Your task to perform on an android device: Open the phone app and click the voicemail tab. Image 0: 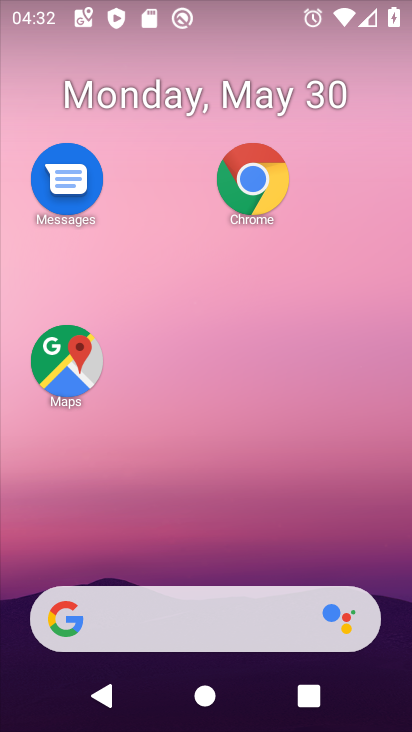
Step 0: drag from (163, 518) to (268, 30)
Your task to perform on an android device: Open the phone app and click the voicemail tab. Image 1: 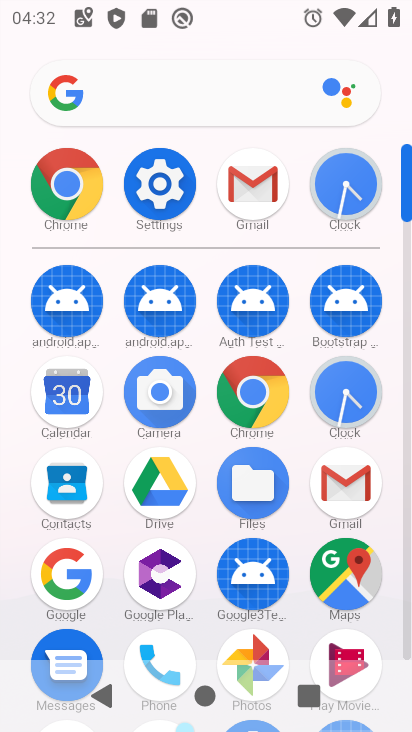
Step 1: drag from (277, 651) to (340, 285)
Your task to perform on an android device: Open the phone app and click the voicemail tab. Image 2: 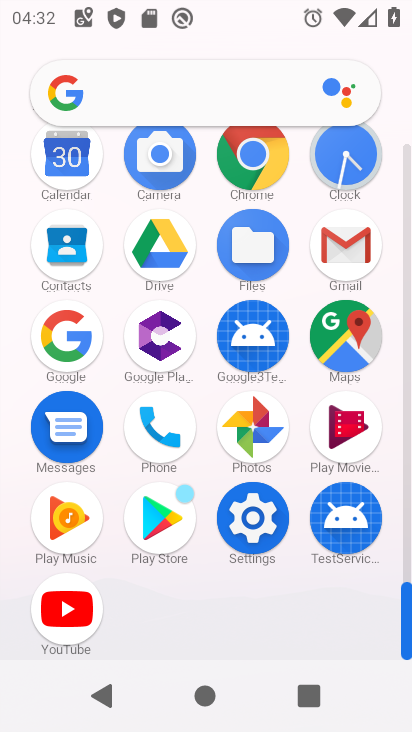
Step 2: click (157, 429)
Your task to perform on an android device: Open the phone app and click the voicemail tab. Image 3: 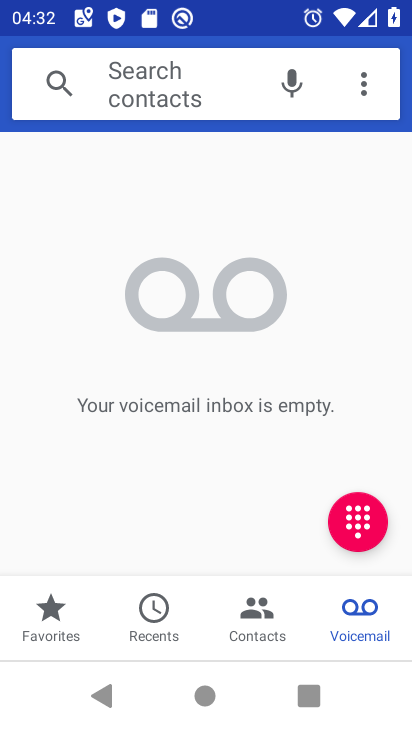
Step 3: click (348, 629)
Your task to perform on an android device: Open the phone app and click the voicemail tab. Image 4: 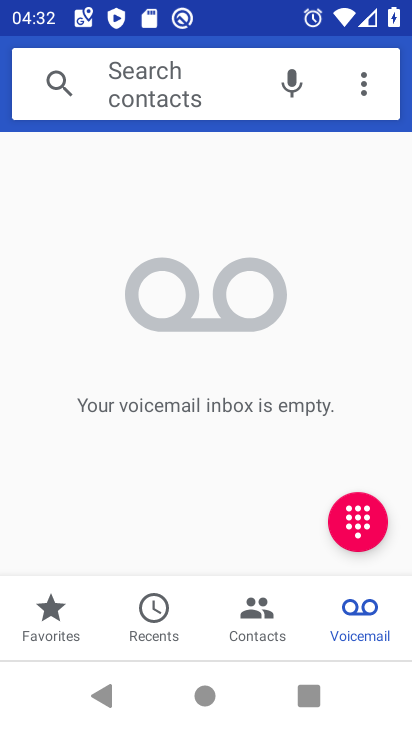
Step 4: task complete